Your task to perform on an android device: change notifications settings Image 0: 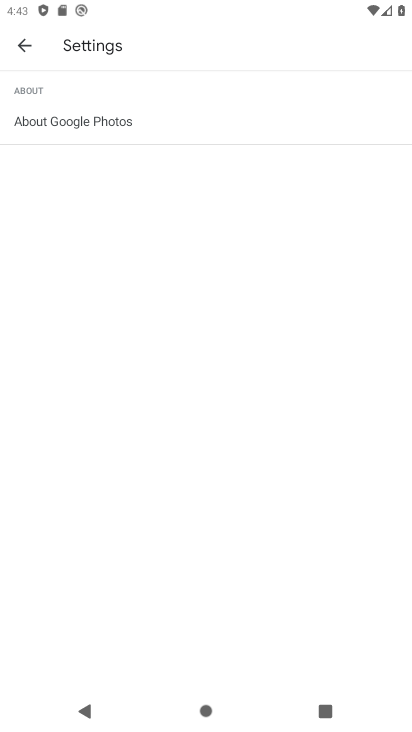
Step 0: press home button
Your task to perform on an android device: change notifications settings Image 1: 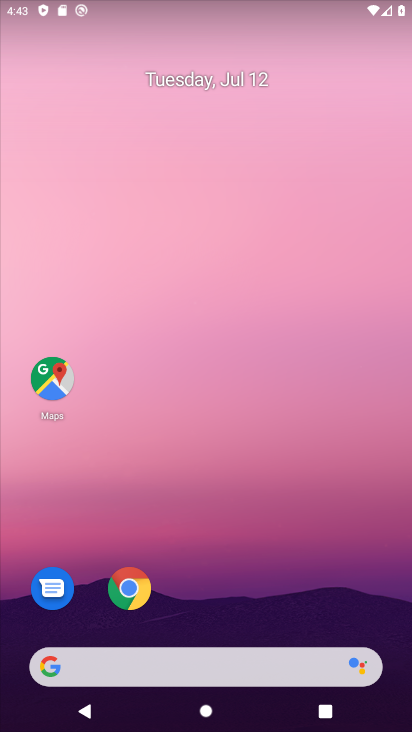
Step 1: drag from (268, 560) to (255, 42)
Your task to perform on an android device: change notifications settings Image 2: 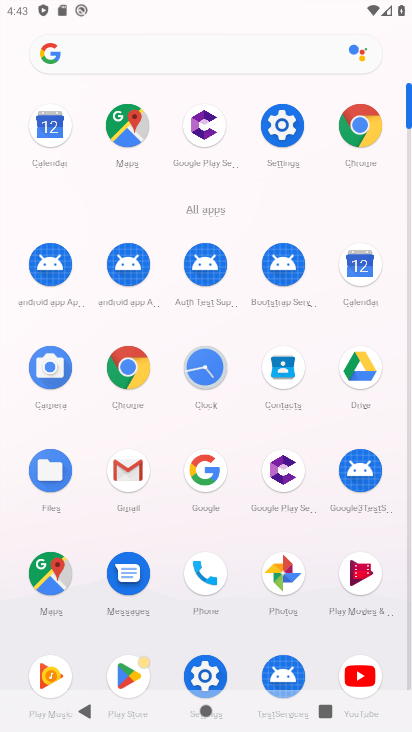
Step 2: click (213, 672)
Your task to perform on an android device: change notifications settings Image 3: 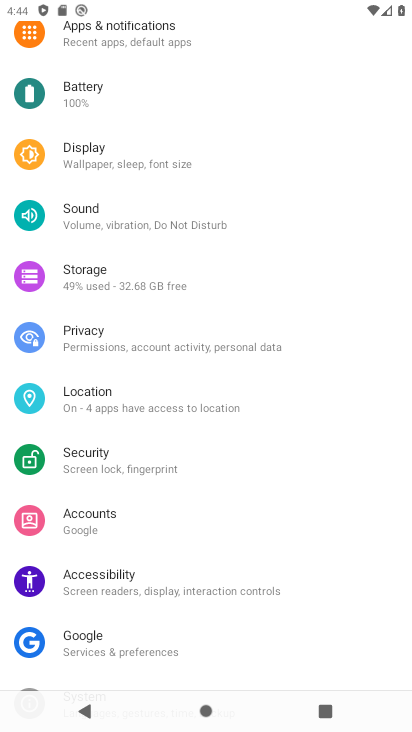
Step 3: drag from (113, 187) to (109, 548)
Your task to perform on an android device: change notifications settings Image 4: 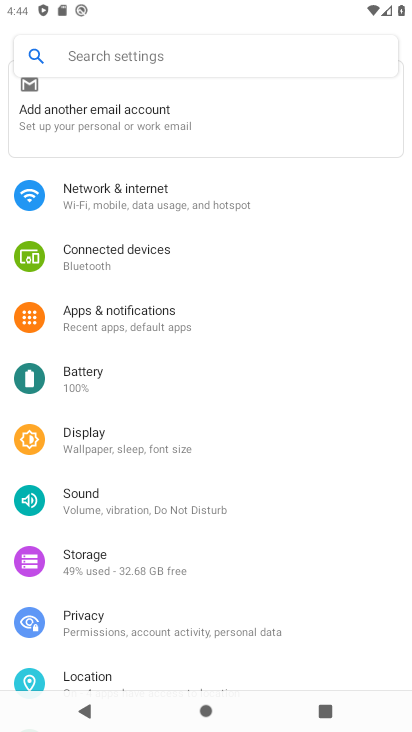
Step 4: click (117, 114)
Your task to perform on an android device: change notifications settings Image 5: 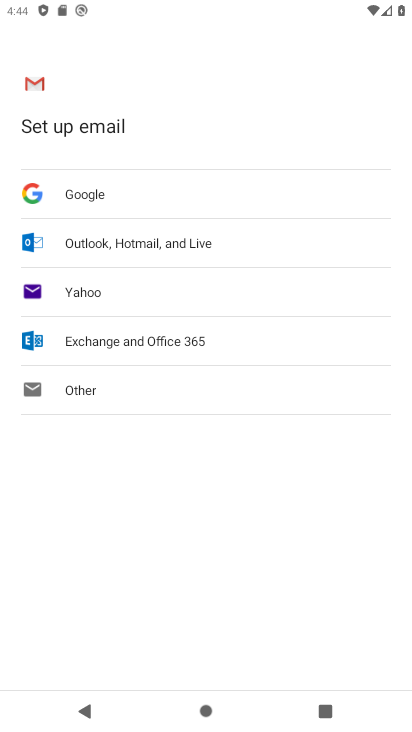
Step 5: press home button
Your task to perform on an android device: change notifications settings Image 6: 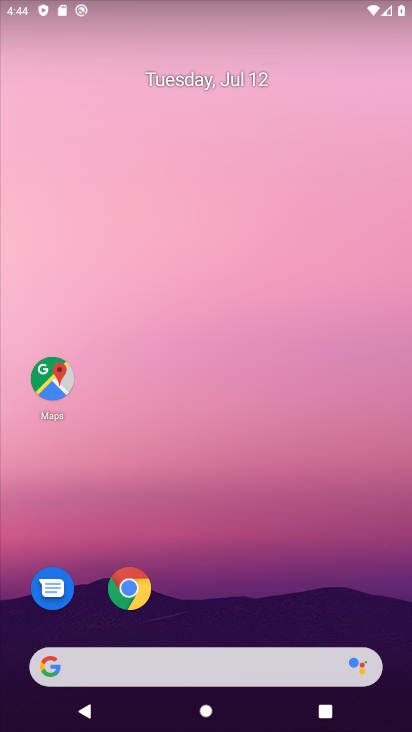
Step 6: drag from (223, 581) to (221, 9)
Your task to perform on an android device: change notifications settings Image 7: 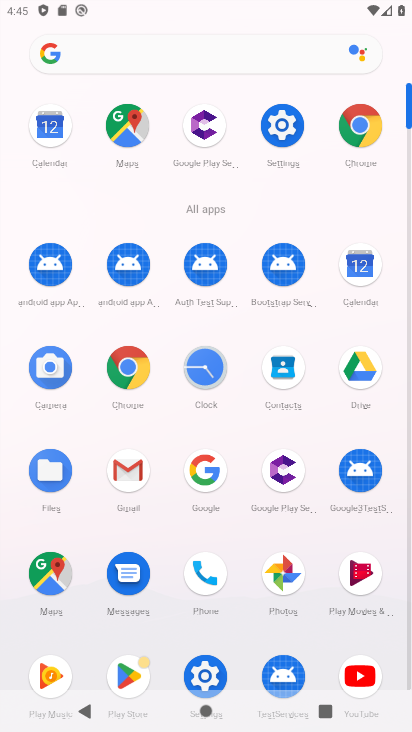
Step 7: click (202, 658)
Your task to perform on an android device: change notifications settings Image 8: 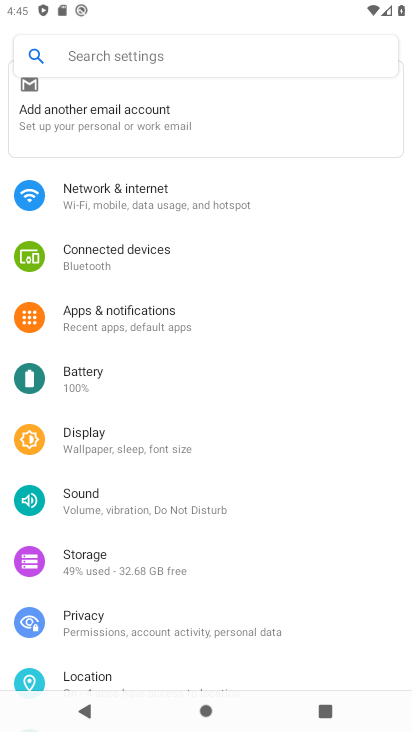
Step 8: click (131, 299)
Your task to perform on an android device: change notifications settings Image 9: 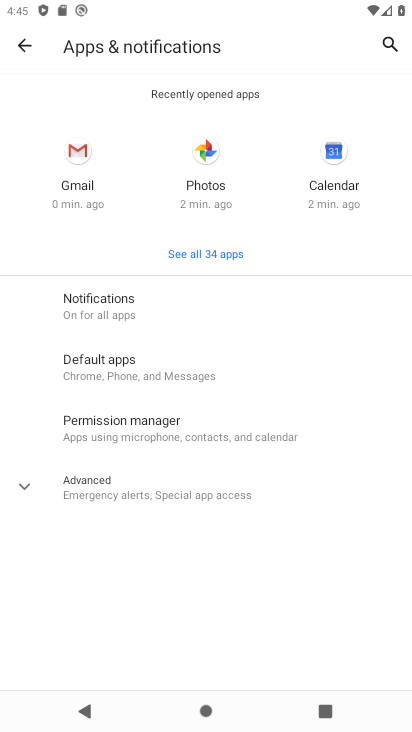
Step 9: click (129, 312)
Your task to perform on an android device: change notifications settings Image 10: 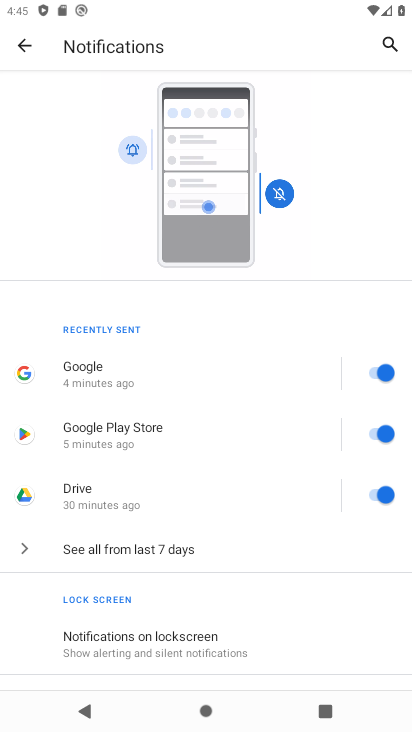
Step 10: task complete